Your task to perform on an android device: Show me recent news Image 0: 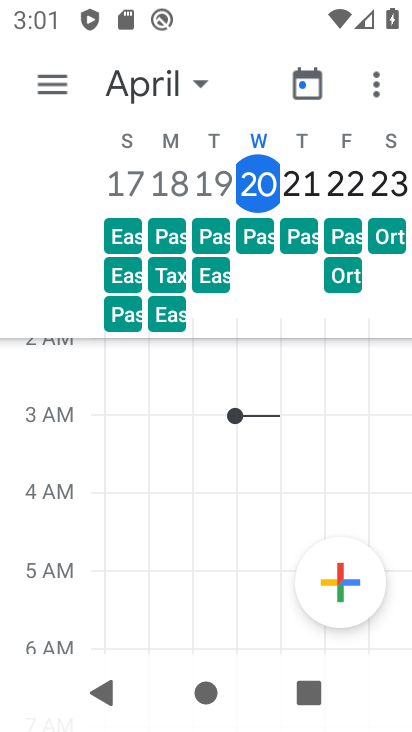
Step 0: press home button
Your task to perform on an android device: Show me recent news Image 1: 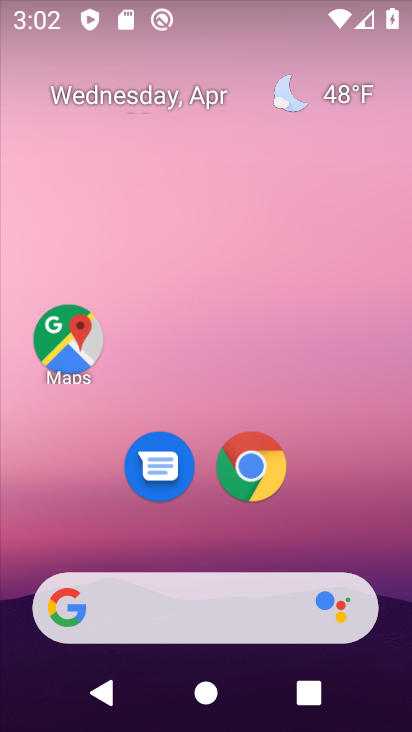
Step 1: click (74, 603)
Your task to perform on an android device: Show me recent news Image 2: 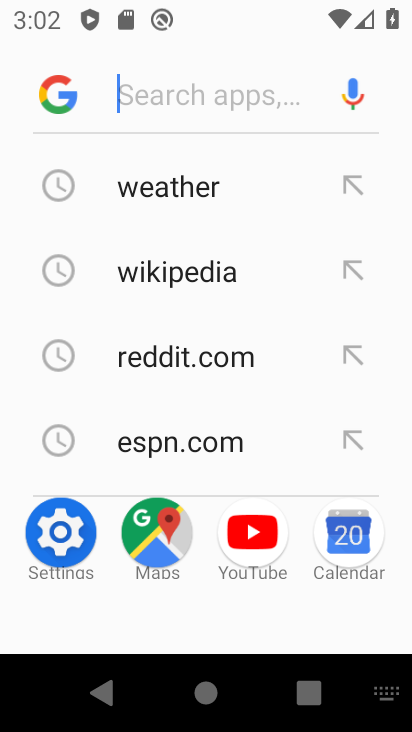
Step 2: click (63, 100)
Your task to perform on an android device: Show me recent news Image 3: 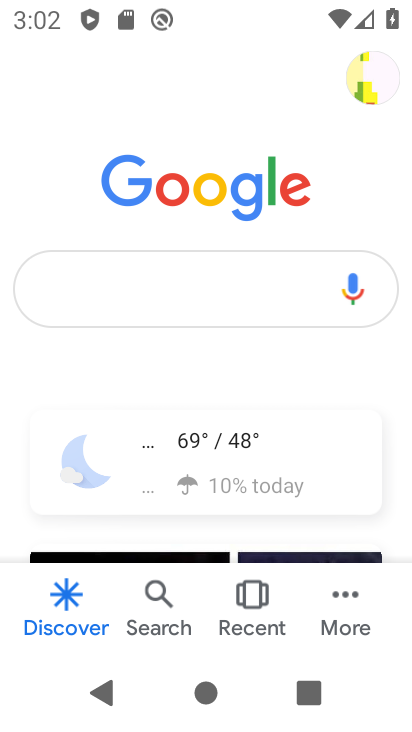
Step 3: task complete